Your task to perform on an android device: Open Google Maps and go to "Timeline" Image 0: 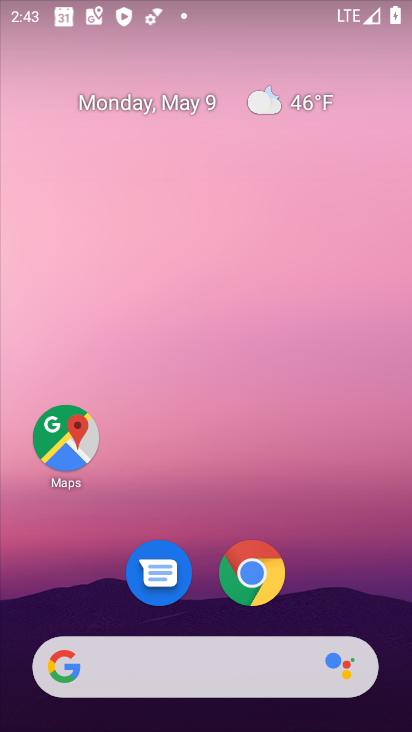
Step 0: drag from (199, 393) to (214, 186)
Your task to perform on an android device: Open Google Maps and go to "Timeline" Image 1: 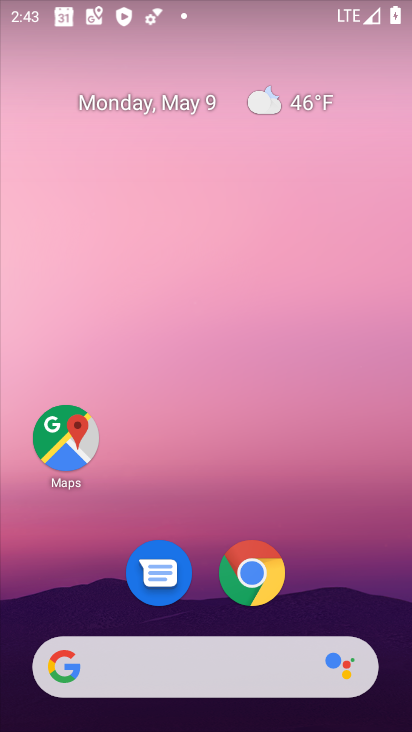
Step 1: click (66, 443)
Your task to perform on an android device: Open Google Maps and go to "Timeline" Image 2: 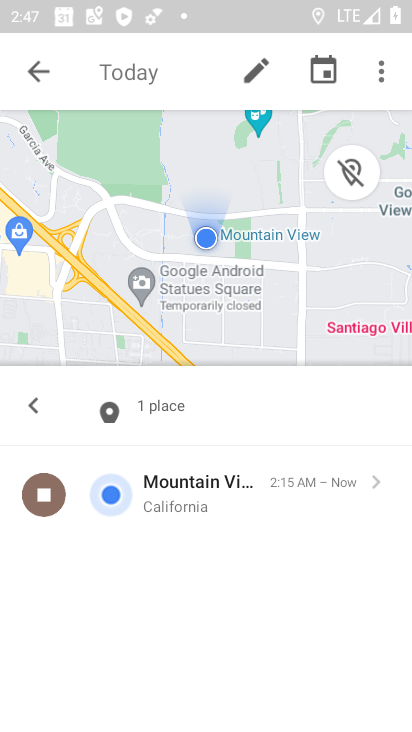
Step 2: task complete